Your task to perform on an android device: make emails show in primary in the gmail app Image 0: 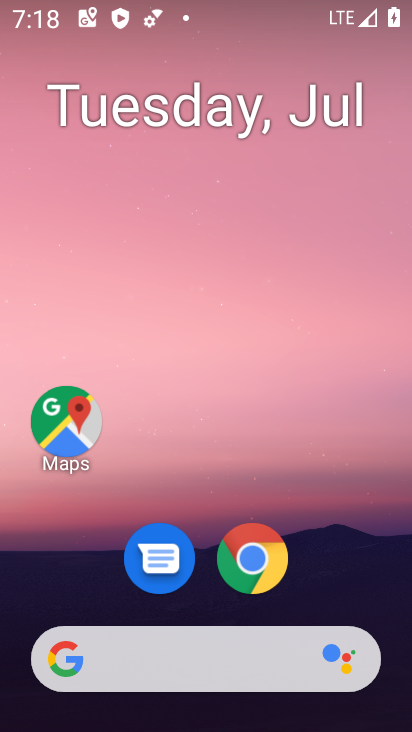
Step 0: drag from (119, 534) to (221, 4)
Your task to perform on an android device: make emails show in primary in the gmail app Image 1: 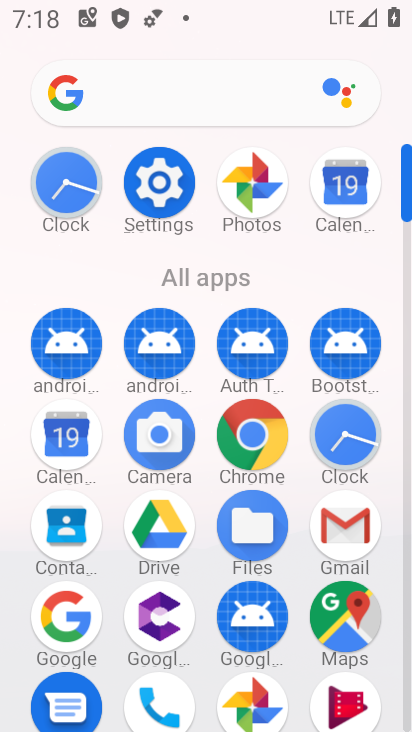
Step 1: click (345, 524)
Your task to perform on an android device: make emails show in primary in the gmail app Image 2: 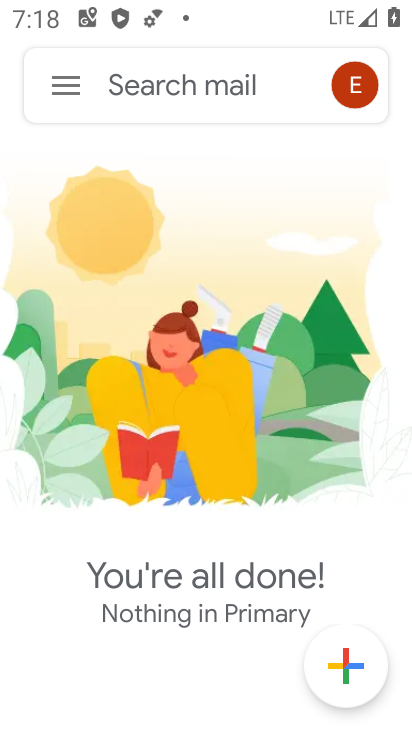
Step 2: click (69, 93)
Your task to perform on an android device: make emails show in primary in the gmail app Image 3: 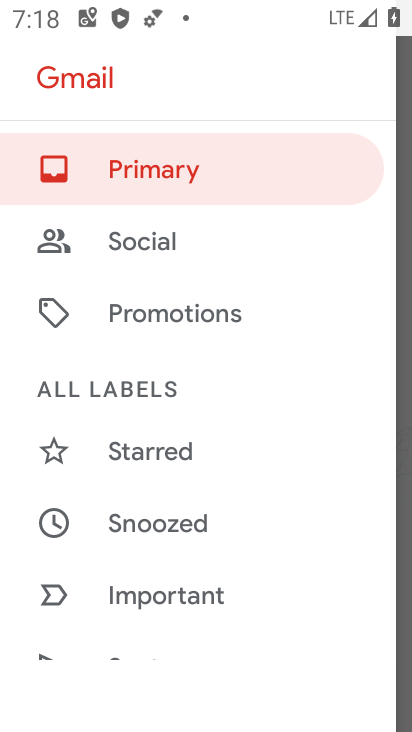
Step 3: drag from (162, 606) to (209, 35)
Your task to perform on an android device: make emails show in primary in the gmail app Image 4: 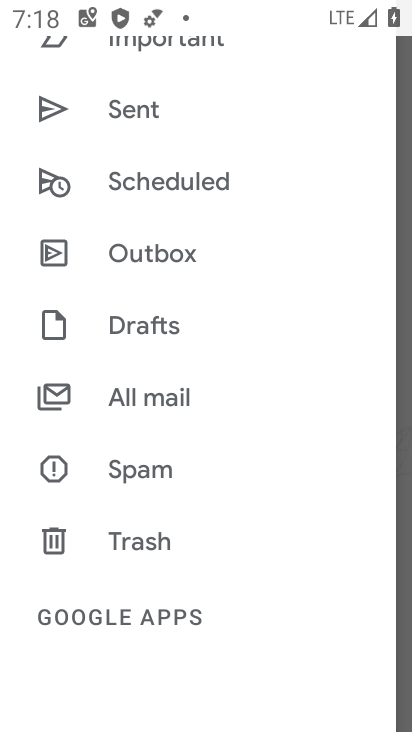
Step 4: drag from (152, 616) to (215, 2)
Your task to perform on an android device: make emails show in primary in the gmail app Image 5: 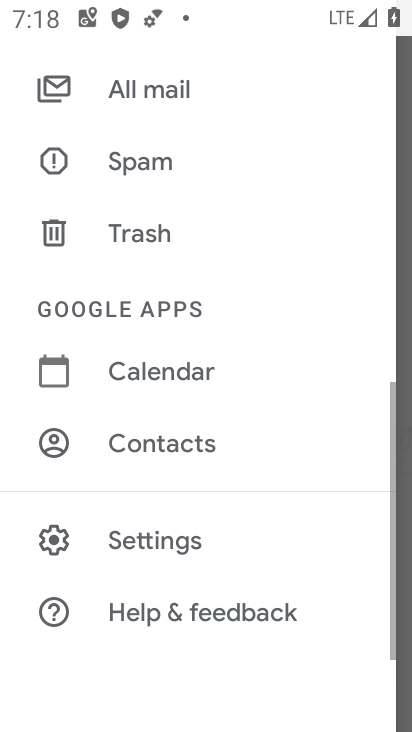
Step 5: click (189, 540)
Your task to perform on an android device: make emails show in primary in the gmail app Image 6: 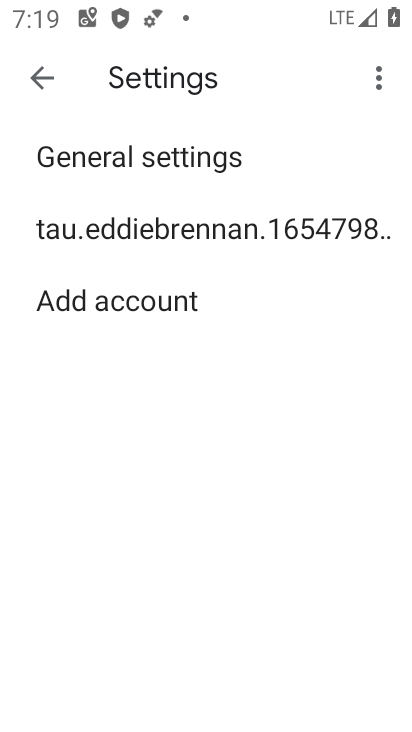
Step 6: click (167, 242)
Your task to perform on an android device: make emails show in primary in the gmail app Image 7: 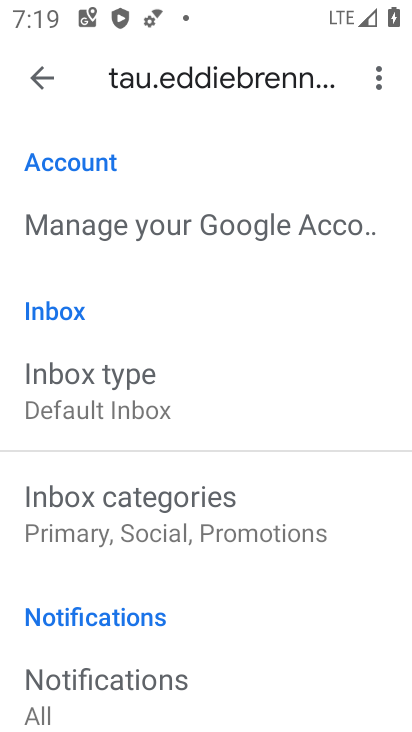
Step 7: click (165, 529)
Your task to perform on an android device: make emails show in primary in the gmail app Image 8: 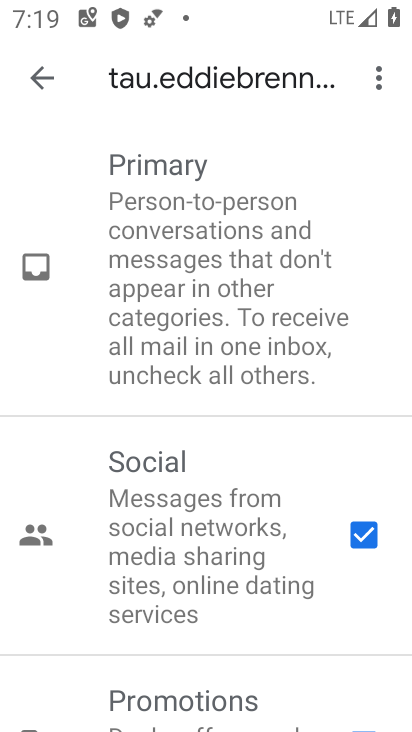
Step 8: drag from (225, 302) to (307, 60)
Your task to perform on an android device: make emails show in primary in the gmail app Image 9: 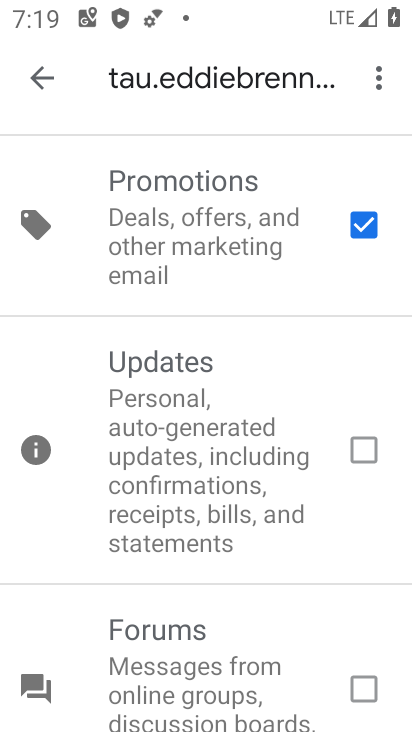
Step 9: click (357, 456)
Your task to perform on an android device: make emails show in primary in the gmail app Image 10: 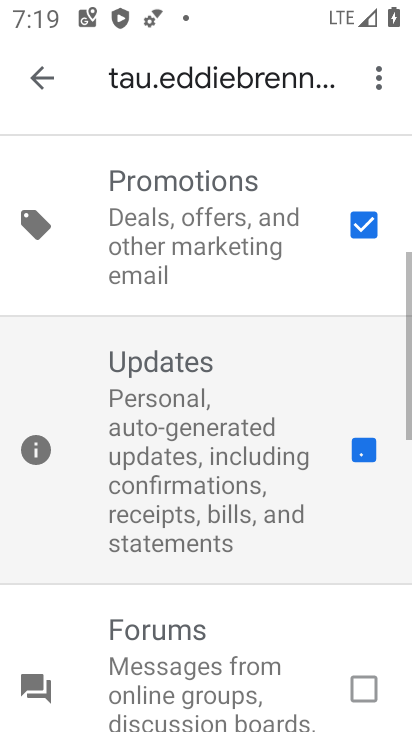
Step 10: drag from (198, 659) to (217, 299)
Your task to perform on an android device: make emails show in primary in the gmail app Image 11: 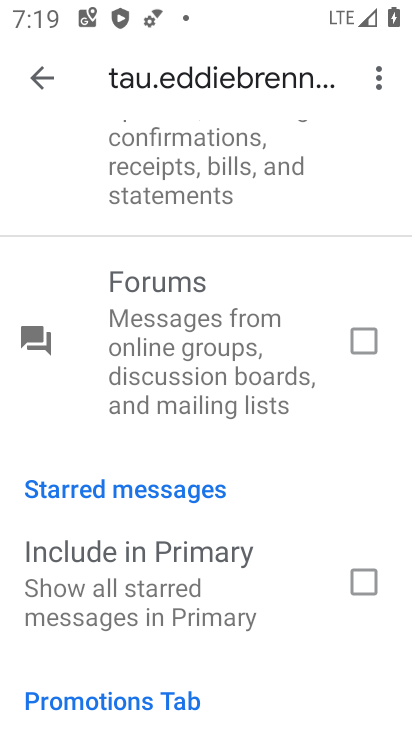
Step 11: click (368, 585)
Your task to perform on an android device: make emails show in primary in the gmail app Image 12: 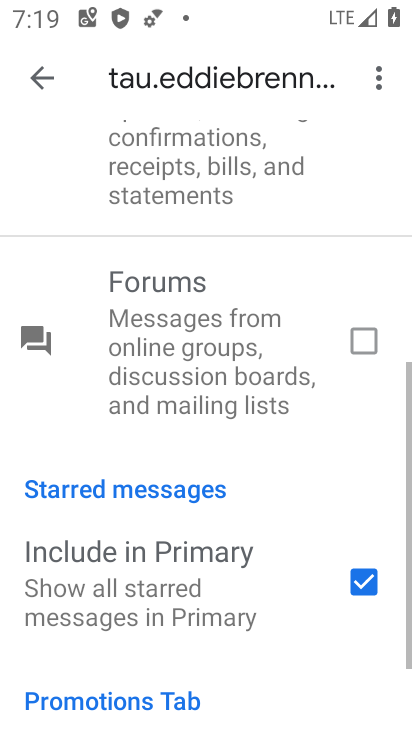
Step 12: click (355, 343)
Your task to perform on an android device: make emails show in primary in the gmail app Image 13: 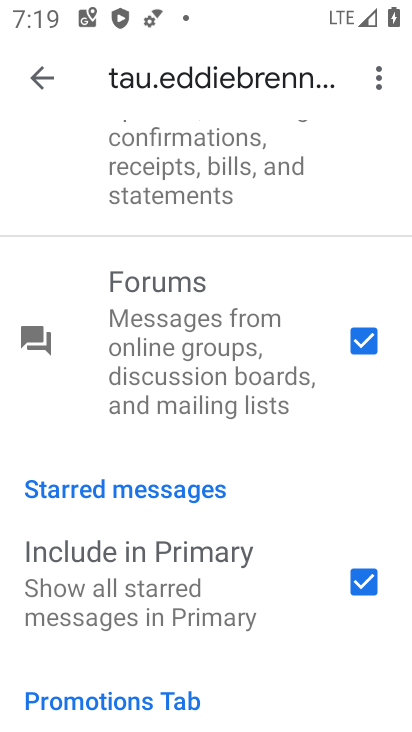
Step 13: task complete